Your task to perform on an android device: turn on the 12-hour format for clock Image 0: 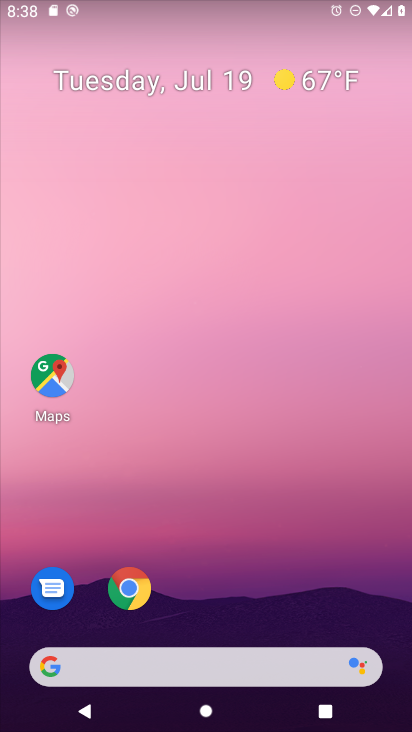
Step 0: drag from (339, 595) to (376, 100)
Your task to perform on an android device: turn on the 12-hour format for clock Image 1: 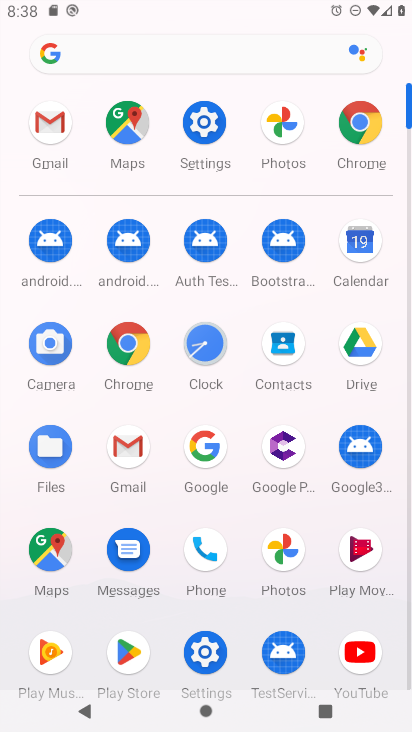
Step 1: click (210, 344)
Your task to perform on an android device: turn on the 12-hour format for clock Image 2: 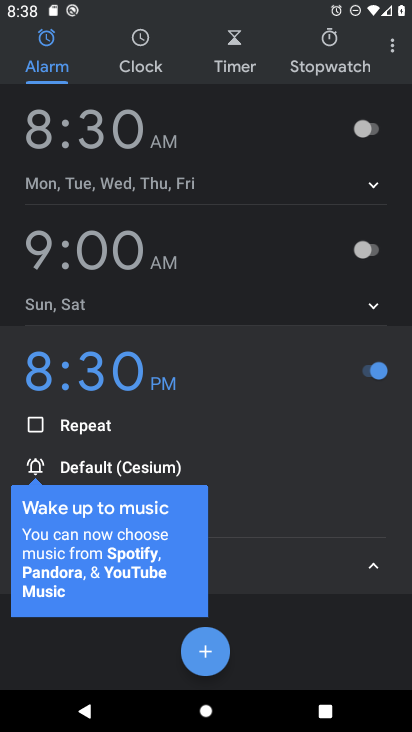
Step 2: click (392, 47)
Your task to perform on an android device: turn on the 12-hour format for clock Image 3: 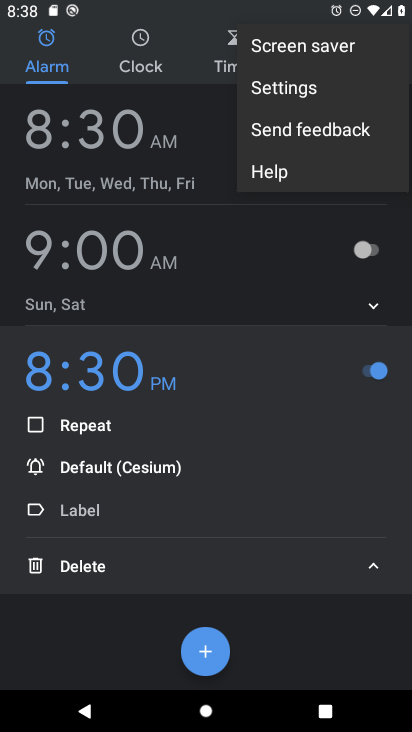
Step 3: click (299, 96)
Your task to perform on an android device: turn on the 12-hour format for clock Image 4: 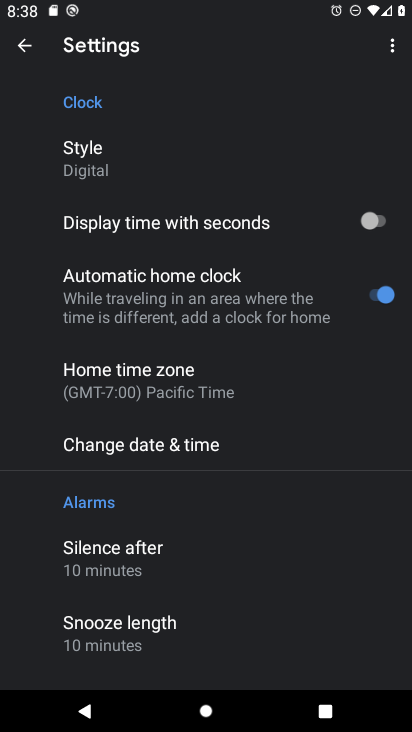
Step 4: drag from (322, 559) to (321, 421)
Your task to perform on an android device: turn on the 12-hour format for clock Image 5: 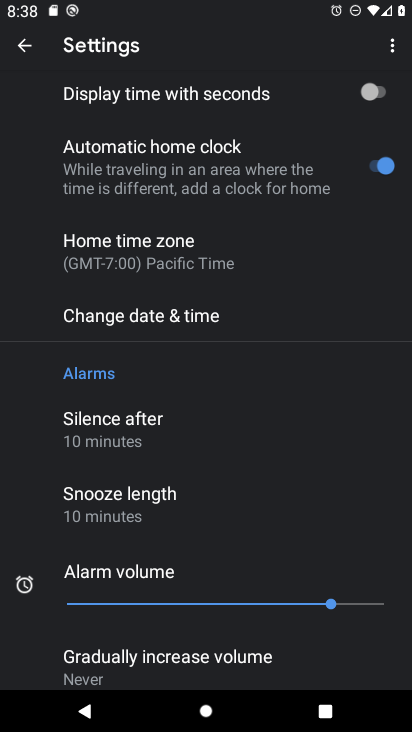
Step 5: drag from (278, 511) to (270, 376)
Your task to perform on an android device: turn on the 12-hour format for clock Image 6: 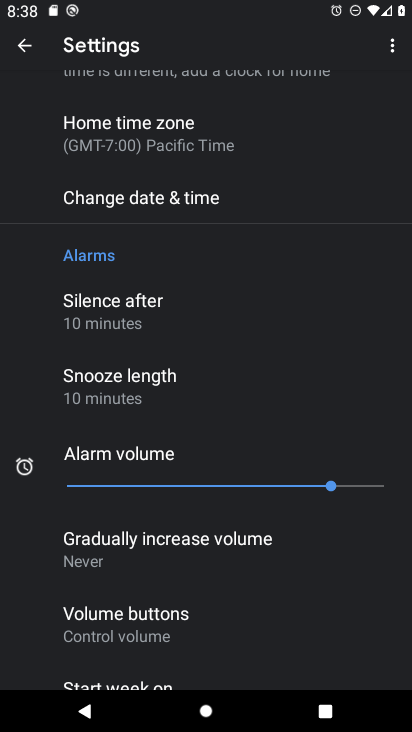
Step 6: click (254, 200)
Your task to perform on an android device: turn on the 12-hour format for clock Image 7: 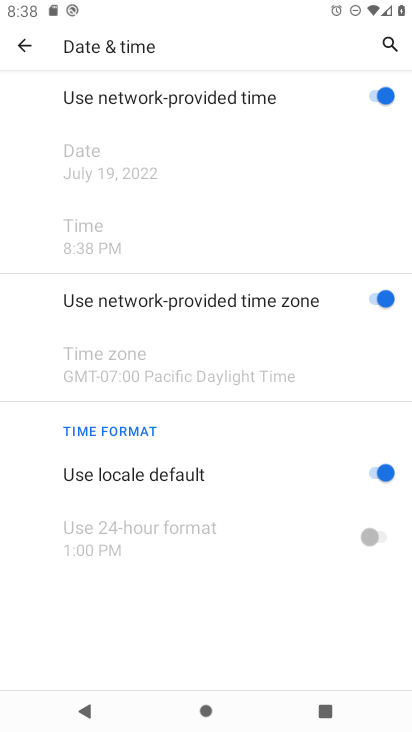
Step 7: task complete